Your task to perform on an android device: change alarm snooze length Image 0: 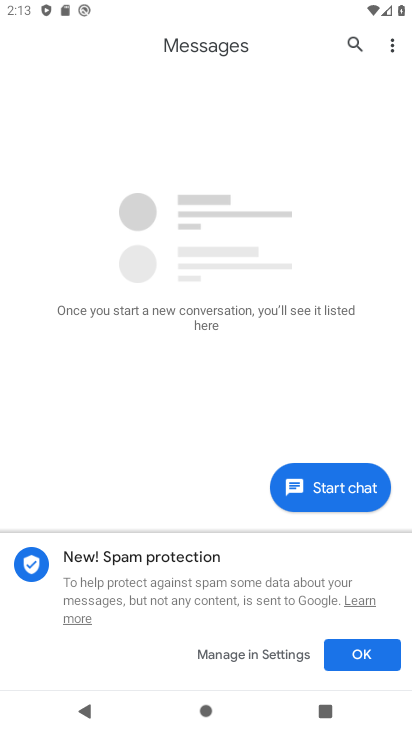
Step 0: press back button
Your task to perform on an android device: change alarm snooze length Image 1: 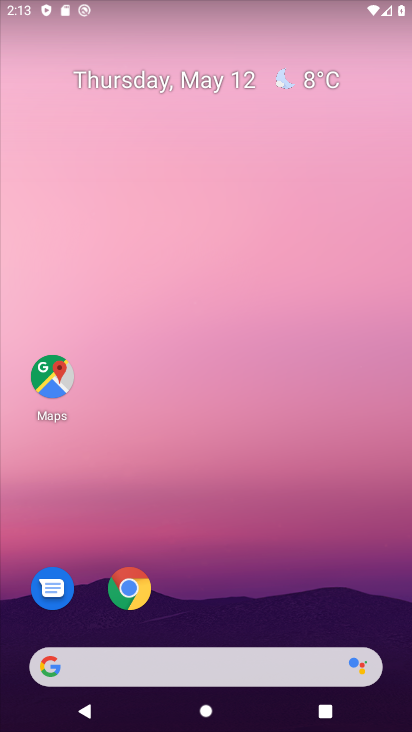
Step 1: drag from (196, 554) to (188, 32)
Your task to perform on an android device: change alarm snooze length Image 2: 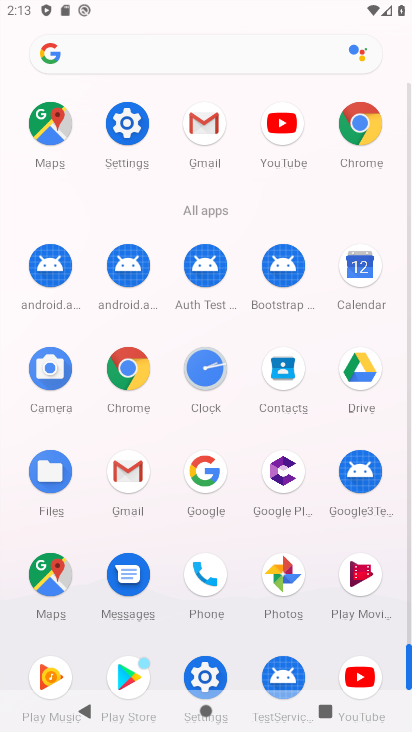
Step 2: drag from (3, 592) to (12, 324)
Your task to perform on an android device: change alarm snooze length Image 3: 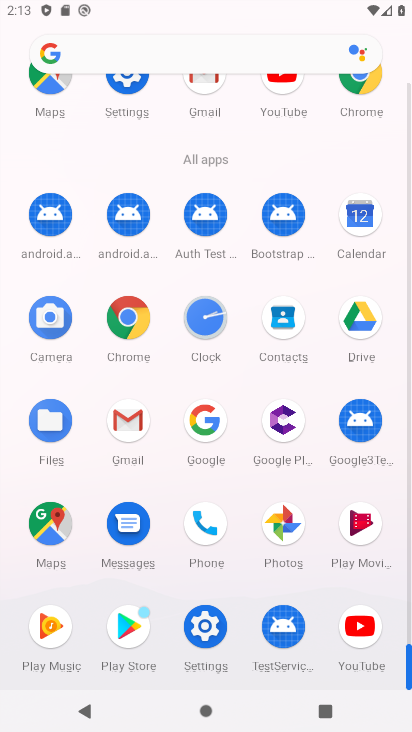
Step 3: click (207, 315)
Your task to perform on an android device: change alarm snooze length Image 4: 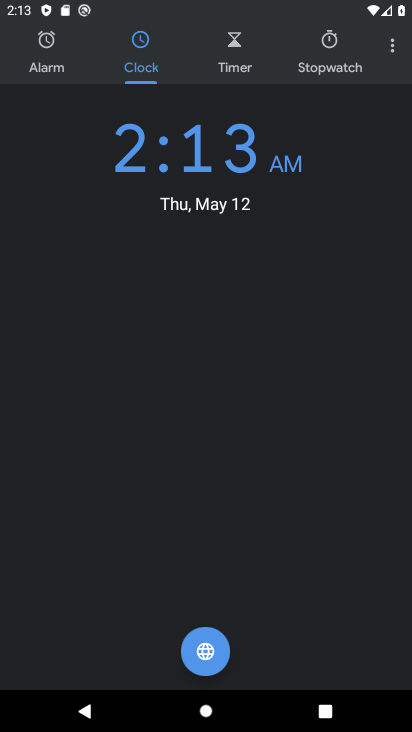
Step 4: drag from (396, 49) to (343, 93)
Your task to perform on an android device: change alarm snooze length Image 5: 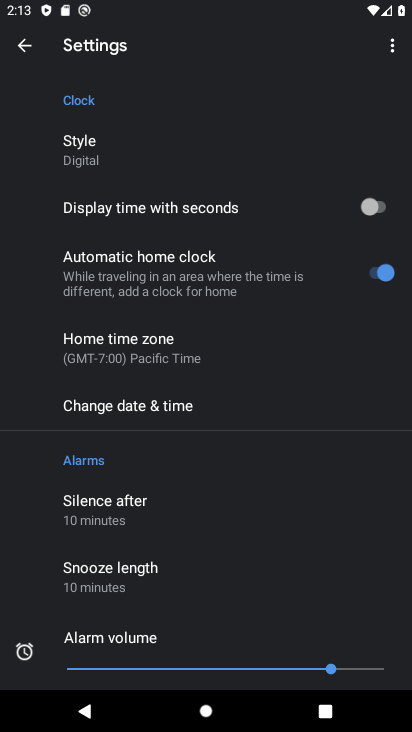
Step 5: click (173, 582)
Your task to perform on an android device: change alarm snooze length Image 6: 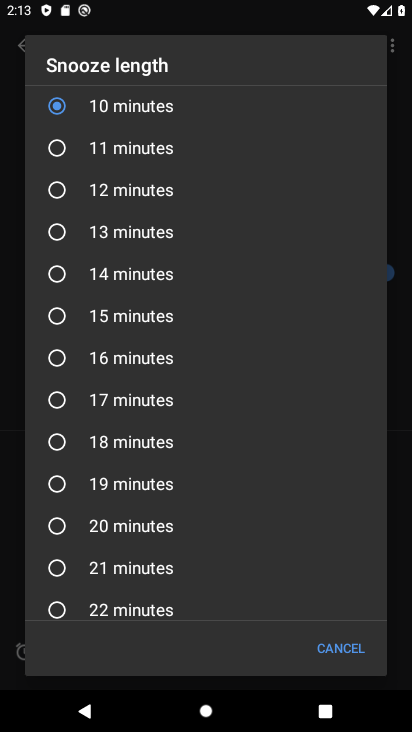
Step 6: click (104, 156)
Your task to perform on an android device: change alarm snooze length Image 7: 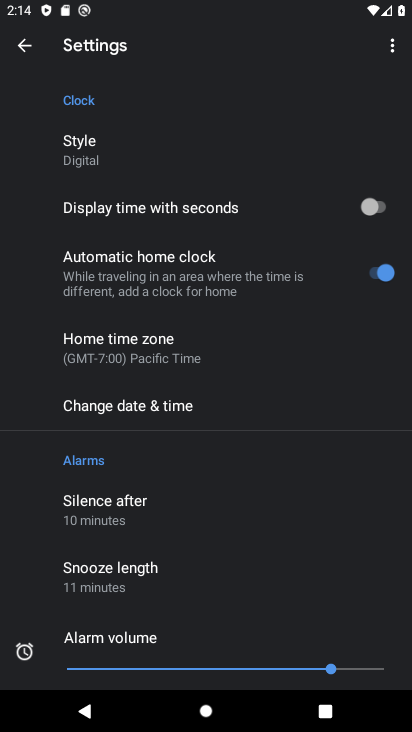
Step 7: drag from (202, 454) to (202, 174)
Your task to perform on an android device: change alarm snooze length Image 8: 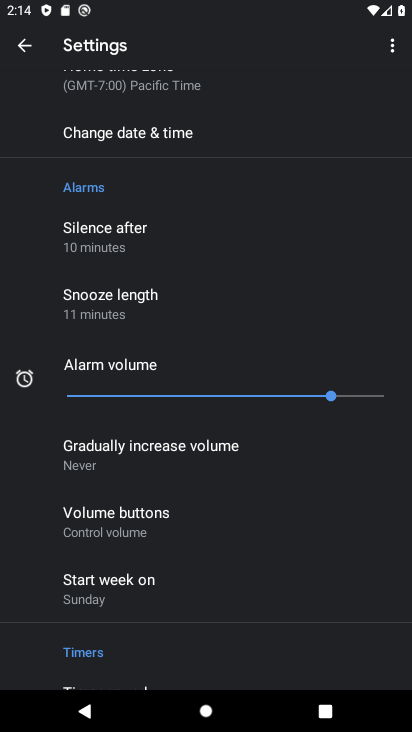
Step 8: drag from (165, 491) to (216, 169)
Your task to perform on an android device: change alarm snooze length Image 9: 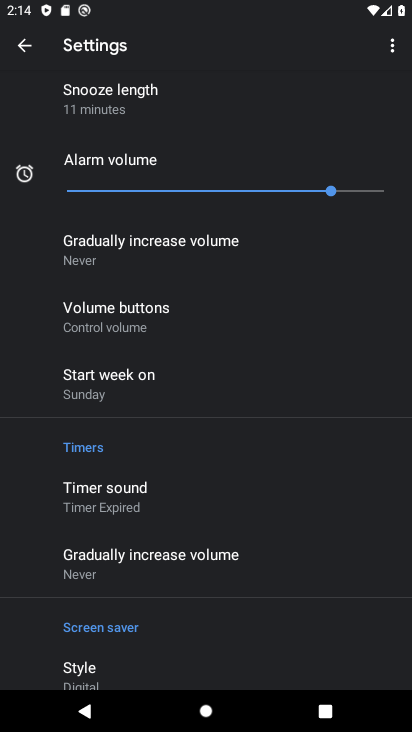
Step 9: drag from (212, 411) to (235, 141)
Your task to perform on an android device: change alarm snooze length Image 10: 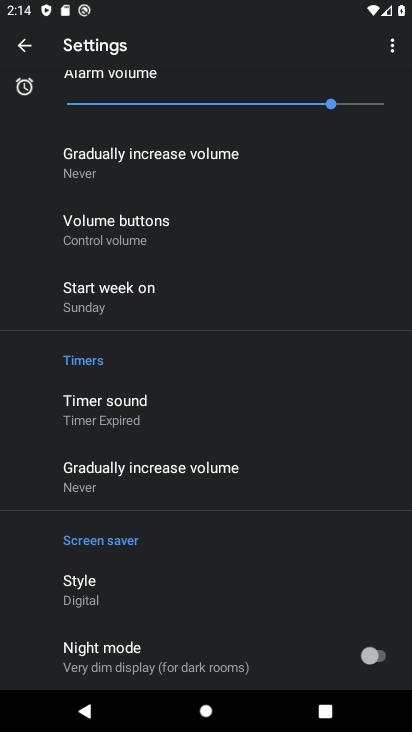
Step 10: drag from (208, 472) to (207, 178)
Your task to perform on an android device: change alarm snooze length Image 11: 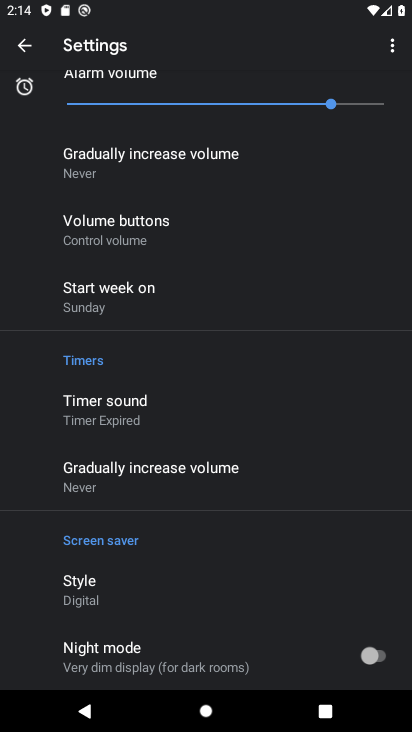
Step 11: drag from (226, 176) to (232, 407)
Your task to perform on an android device: change alarm snooze length Image 12: 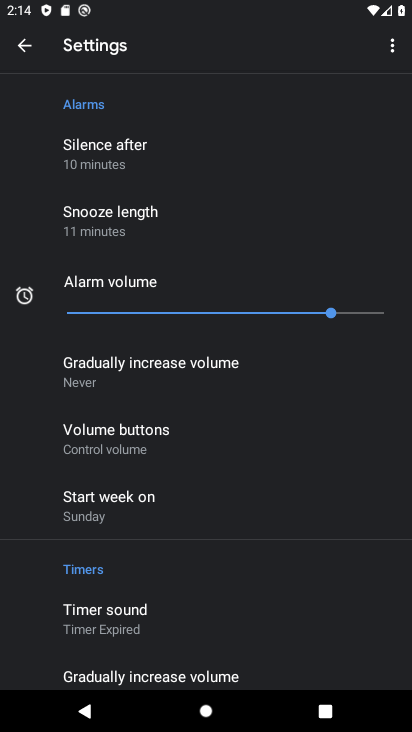
Step 12: drag from (226, 153) to (185, 489)
Your task to perform on an android device: change alarm snooze length Image 13: 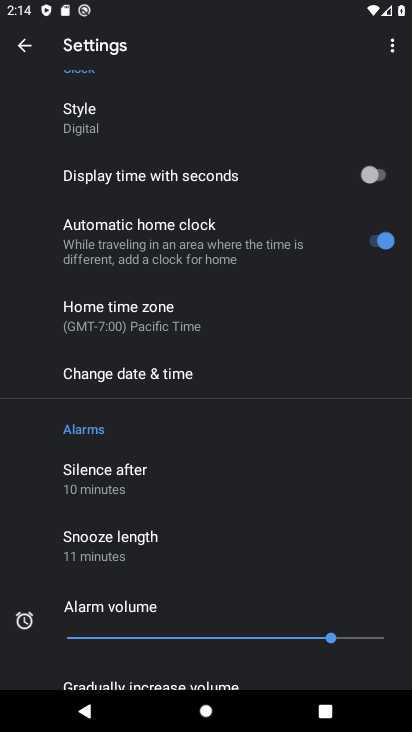
Step 13: drag from (231, 135) to (196, 462)
Your task to perform on an android device: change alarm snooze length Image 14: 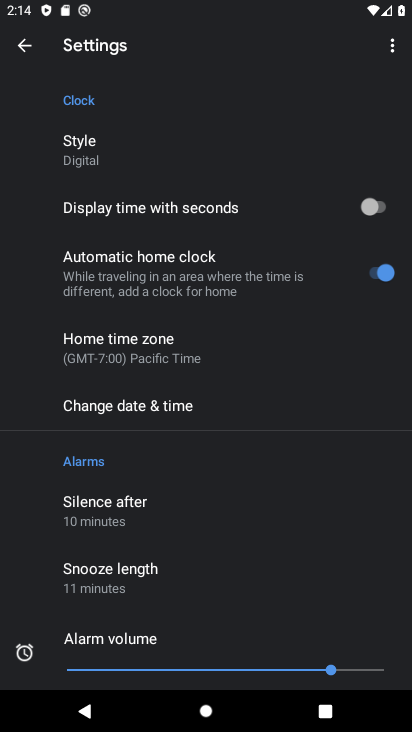
Step 14: drag from (182, 470) to (195, 181)
Your task to perform on an android device: change alarm snooze length Image 15: 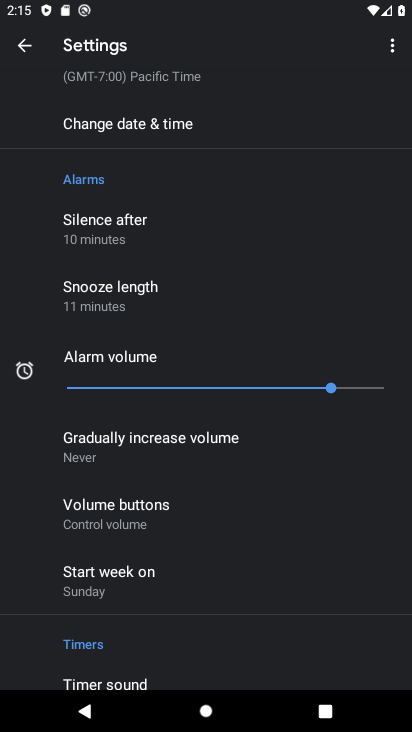
Step 15: click (144, 292)
Your task to perform on an android device: change alarm snooze length Image 16: 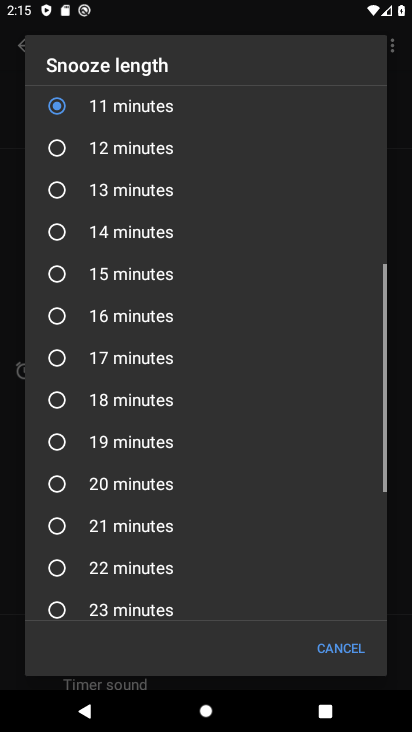
Step 16: click (136, 417)
Your task to perform on an android device: change alarm snooze length Image 17: 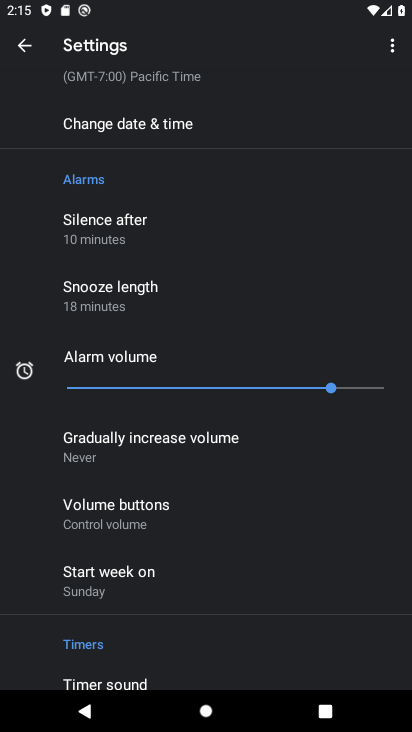
Step 17: task complete